Your task to perform on an android device: open a bookmark in the chrome app Image 0: 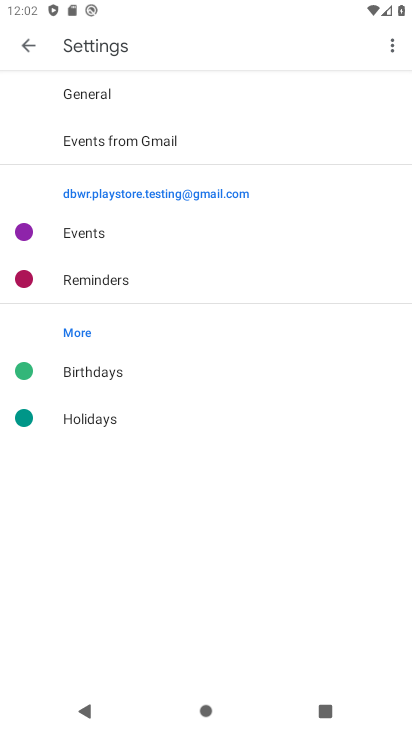
Step 0: task complete